Your task to perform on an android device: Open privacy settings Image 0: 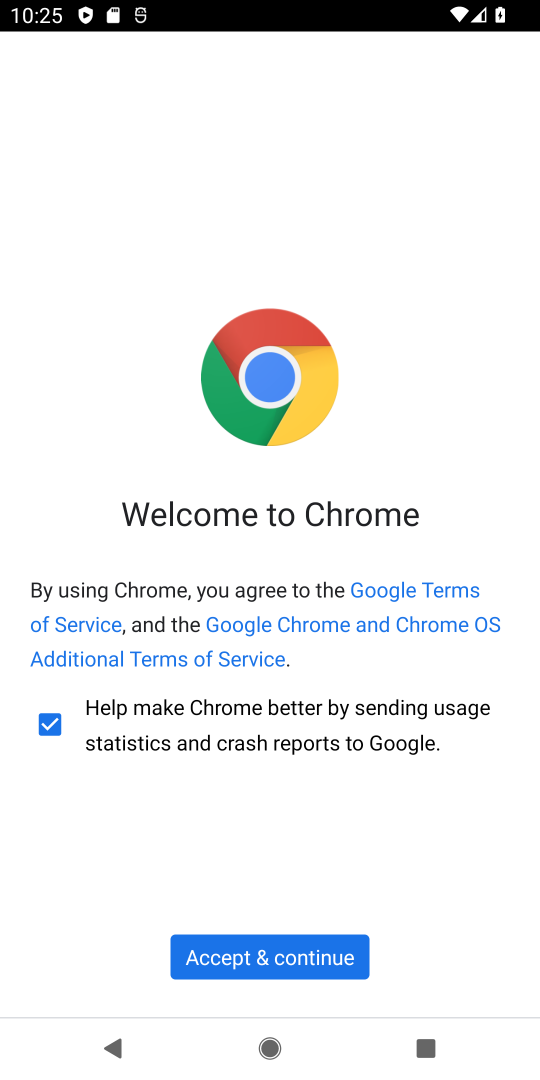
Step 0: press home button
Your task to perform on an android device: Open privacy settings Image 1: 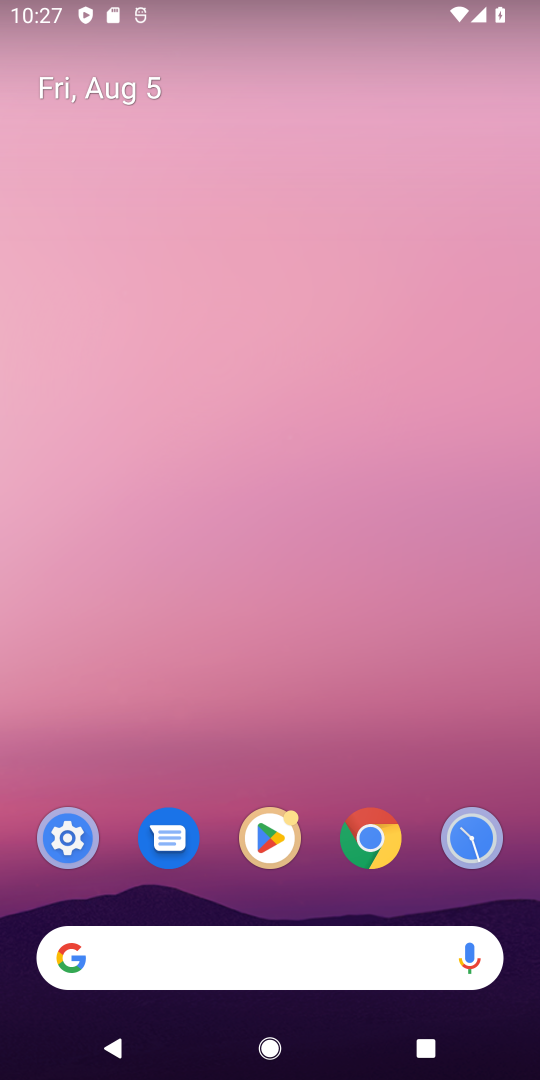
Step 1: click (66, 843)
Your task to perform on an android device: Open privacy settings Image 2: 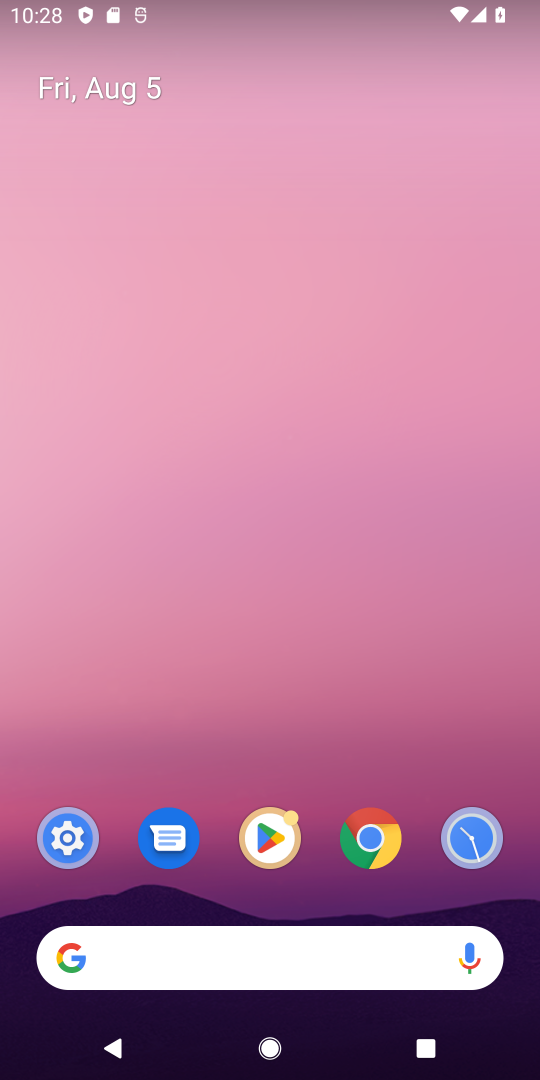
Step 2: click (69, 833)
Your task to perform on an android device: Open privacy settings Image 3: 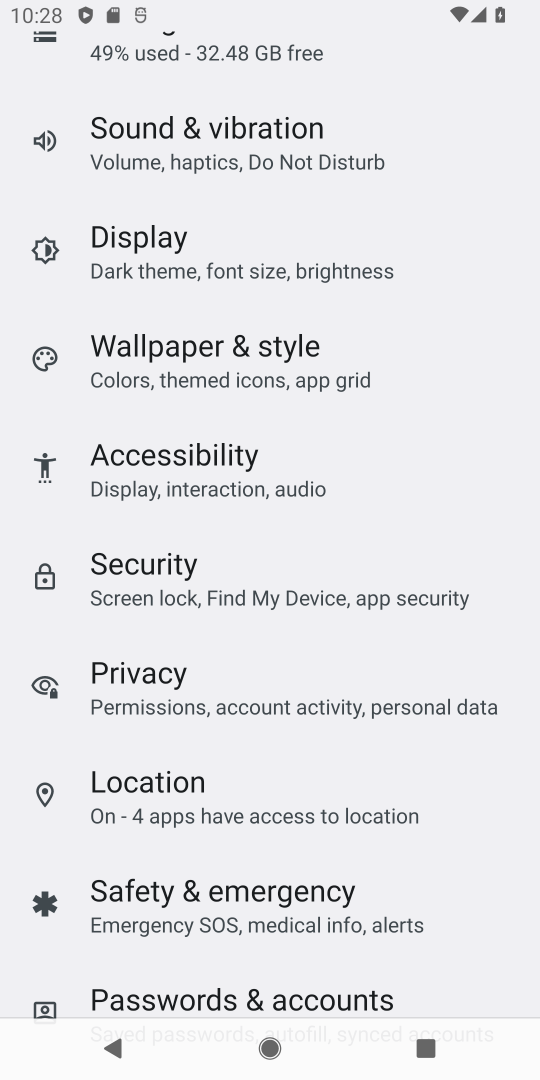
Step 3: click (163, 680)
Your task to perform on an android device: Open privacy settings Image 4: 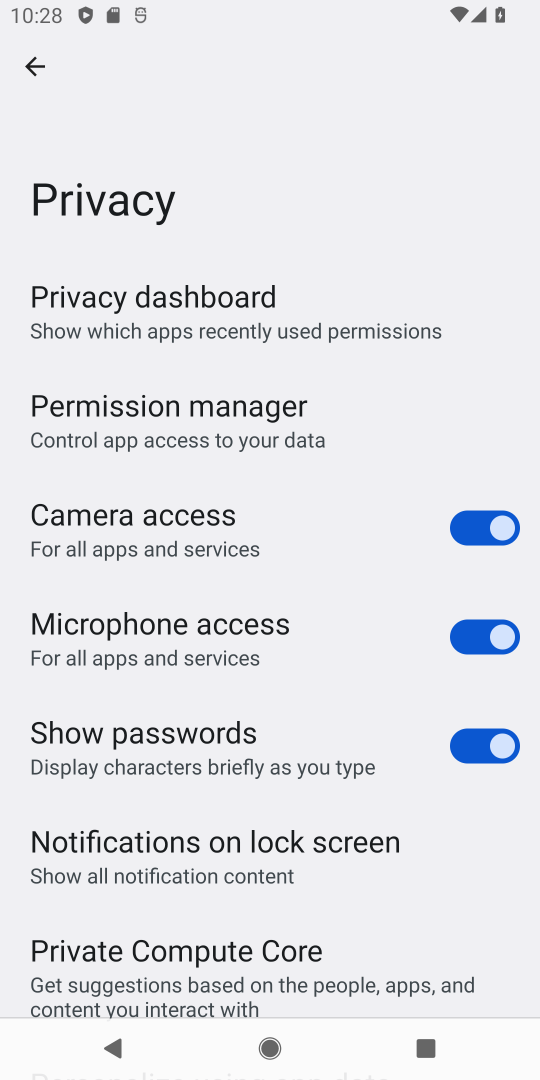
Step 4: task complete